Your task to perform on an android device: Go to location settings Image 0: 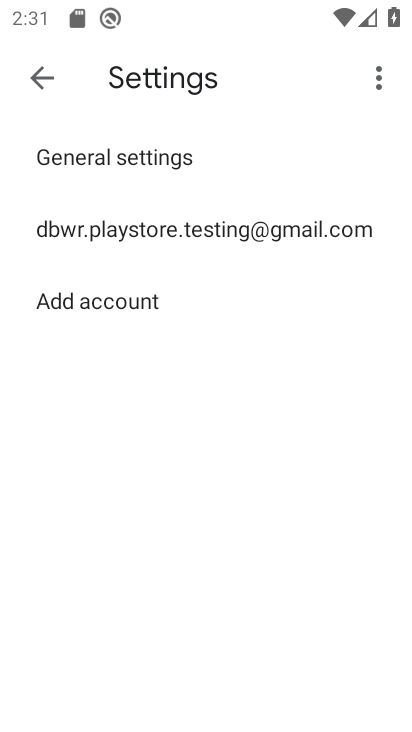
Step 0: press home button
Your task to perform on an android device: Go to location settings Image 1: 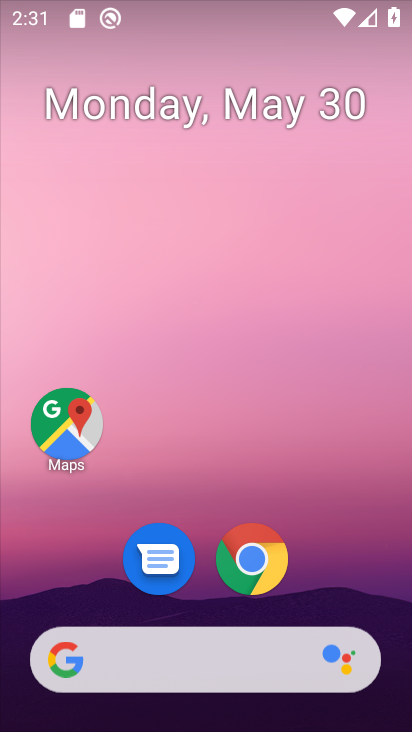
Step 1: drag from (182, 376) to (307, 93)
Your task to perform on an android device: Go to location settings Image 2: 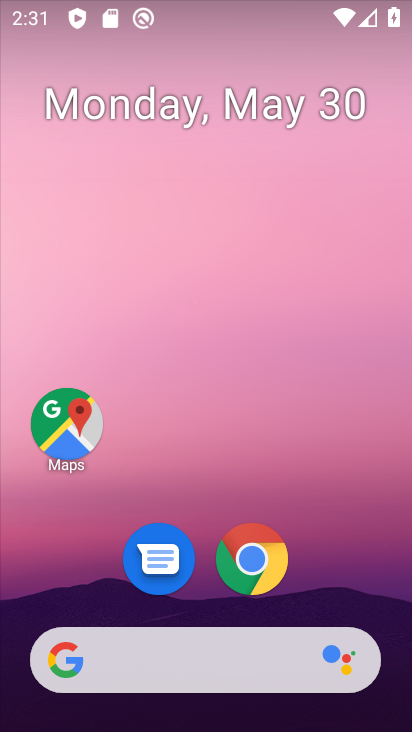
Step 2: drag from (207, 615) to (307, 129)
Your task to perform on an android device: Go to location settings Image 3: 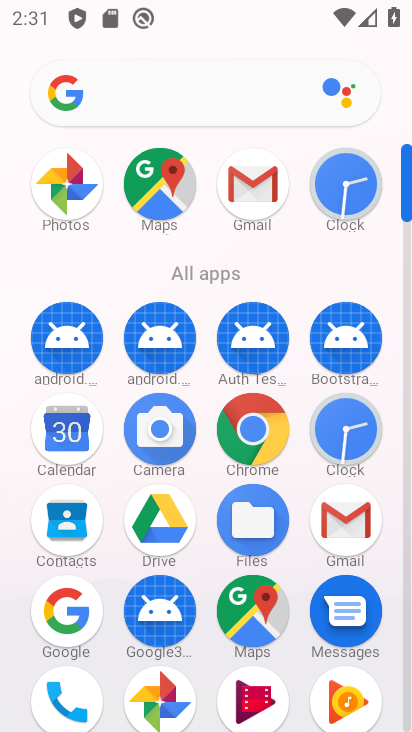
Step 3: drag from (209, 667) to (286, 345)
Your task to perform on an android device: Go to location settings Image 4: 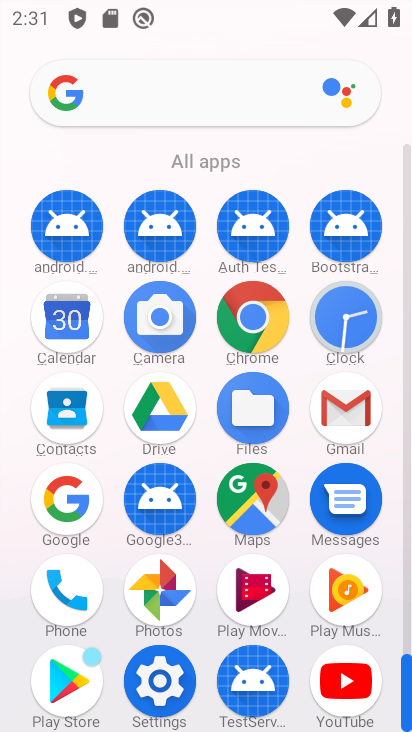
Step 4: click (155, 687)
Your task to perform on an android device: Go to location settings Image 5: 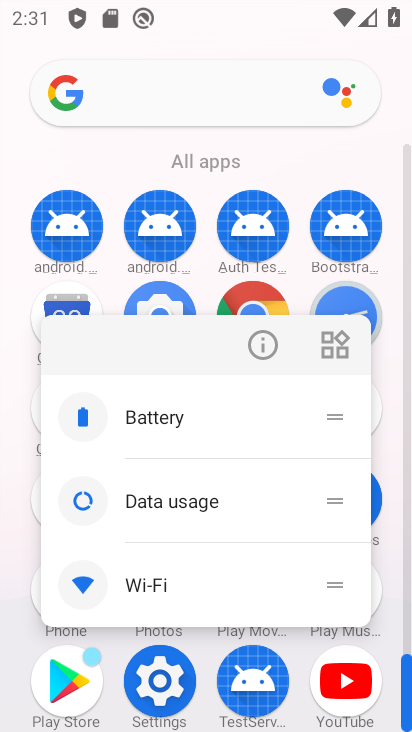
Step 5: click (184, 689)
Your task to perform on an android device: Go to location settings Image 6: 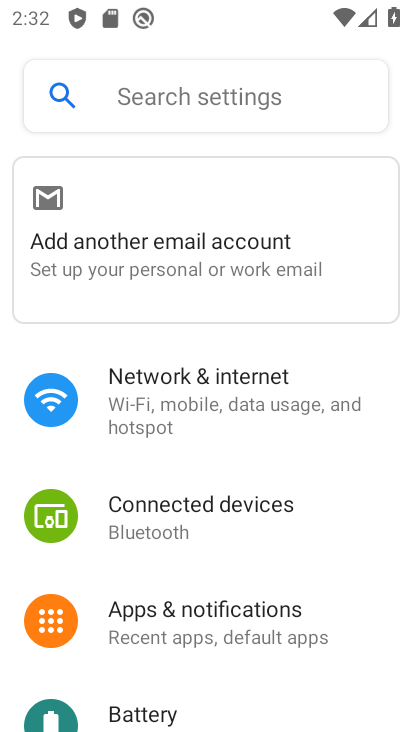
Step 6: drag from (229, 626) to (345, 246)
Your task to perform on an android device: Go to location settings Image 7: 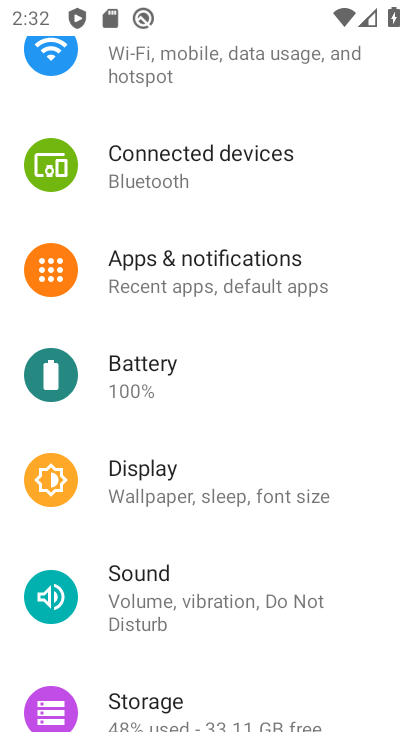
Step 7: drag from (286, 541) to (370, 260)
Your task to perform on an android device: Go to location settings Image 8: 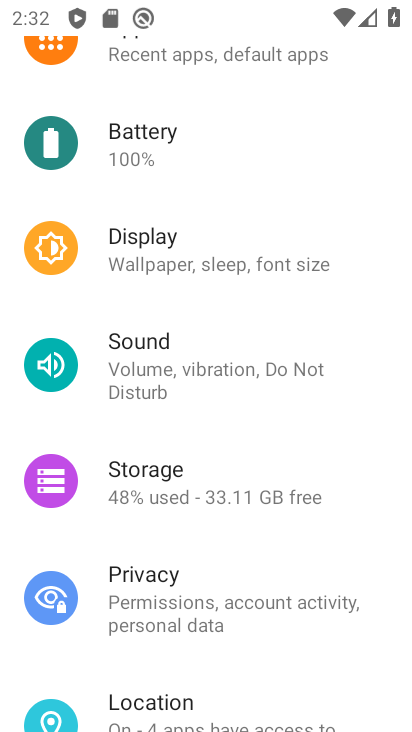
Step 8: click (179, 708)
Your task to perform on an android device: Go to location settings Image 9: 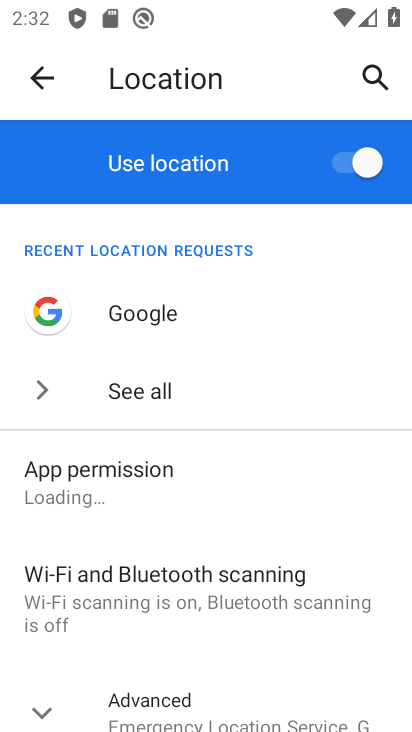
Step 9: task complete